Your task to perform on an android device: all mails in gmail Image 0: 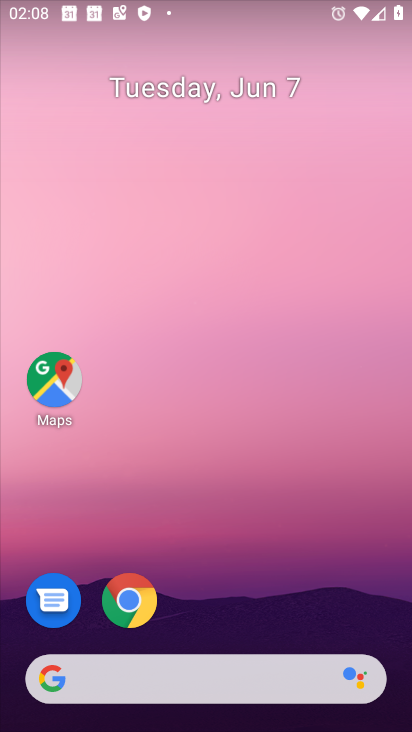
Step 0: drag from (236, 706) to (219, 39)
Your task to perform on an android device: all mails in gmail Image 1: 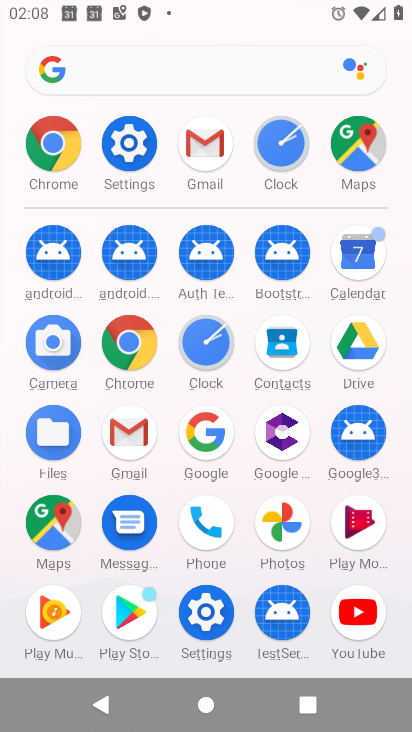
Step 1: click (126, 434)
Your task to perform on an android device: all mails in gmail Image 2: 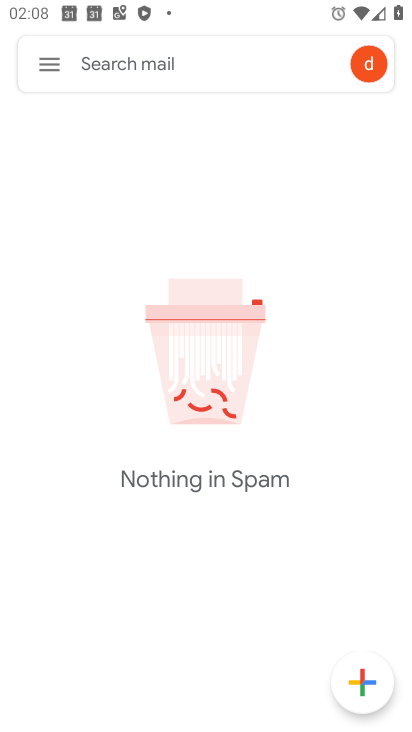
Step 2: click (44, 57)
Your task to perform on an android device: all mails in gmail Image 3: 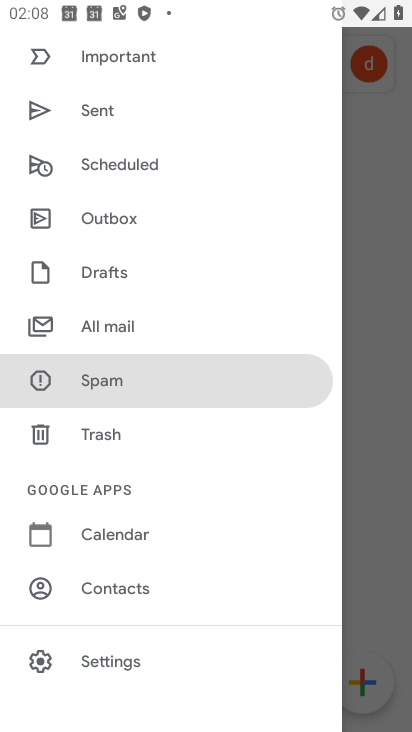
Step 3: click (110, 326)
Your task to perform on an android device: all mails in gmail Image 4: 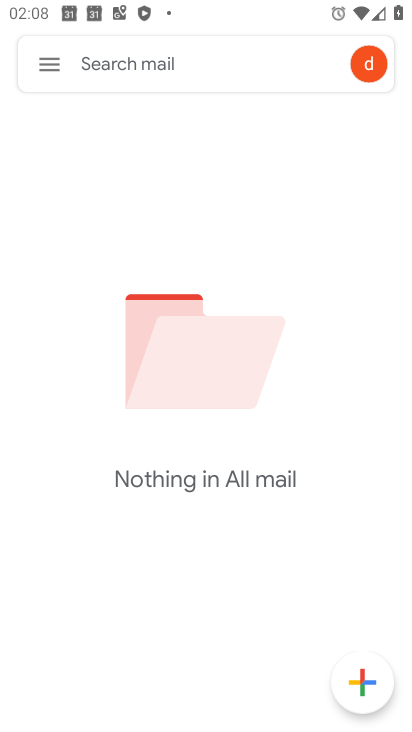
Step 4: task complete